Your task to perform on an android device: Go to display settings Image 0: 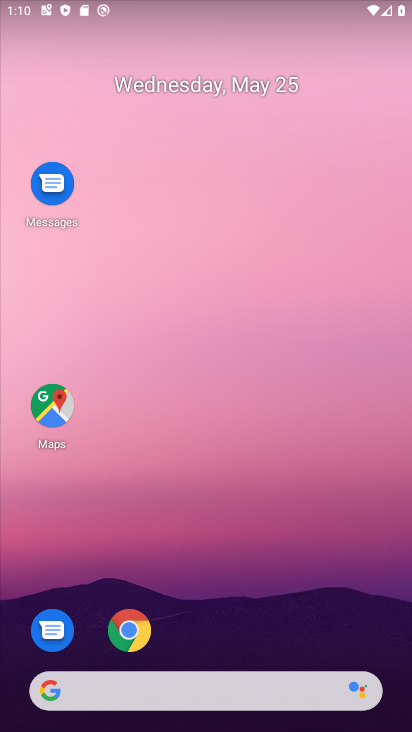
Step 0: drag from (411, 502) to (411, 610)
Your task to perform on an android device: Go to display settings Image 1: 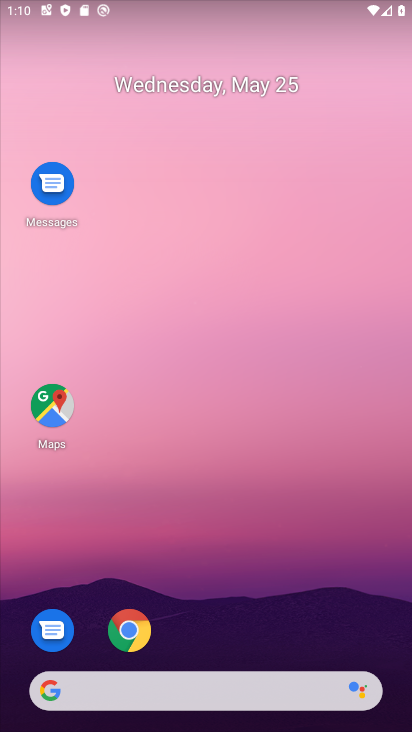
Step 1: drag from (294, 560) to (112, 54)
Your task to perform on an android device: Go to display settings Image 2: 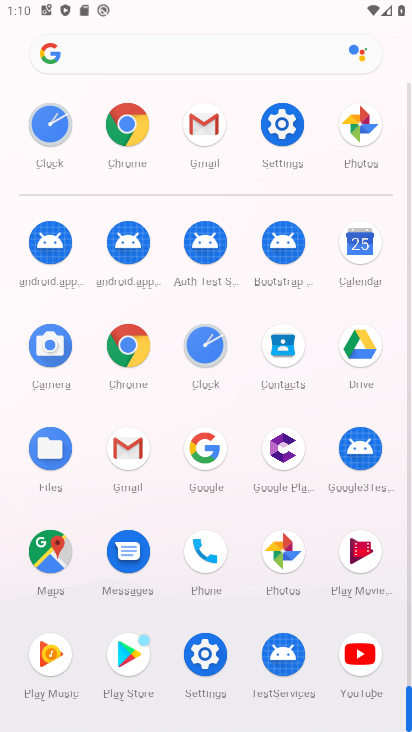
Step 2: click (286, 123)
Your task to perform on an android device: Go to display settings Image 3: 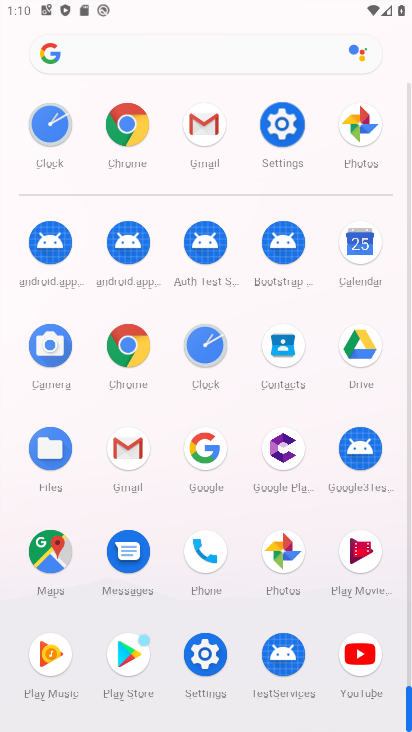
Step 3: click (286, 123)
Your task to perform on an android device: Go to display settings Image 4: 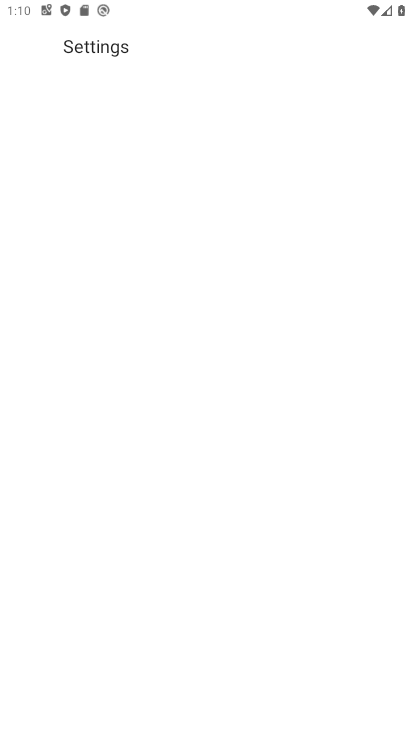
Step 4: click (287, 124)
Your task to perform on an android device: Go to display settings Image 5: 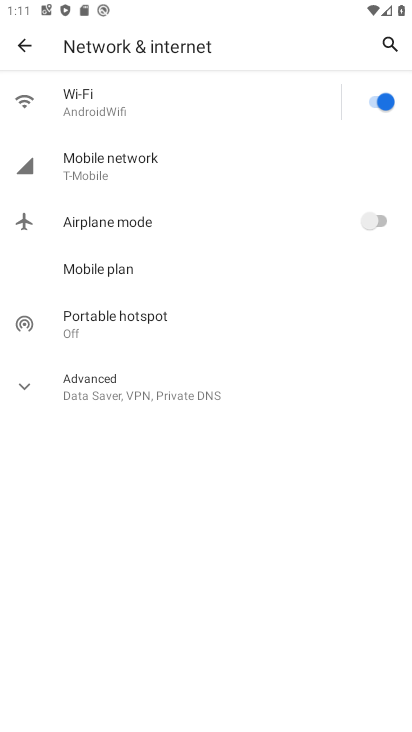
Step 5: click (20, 44)
Your task to perform on an android device: Go to display settings Image 6: 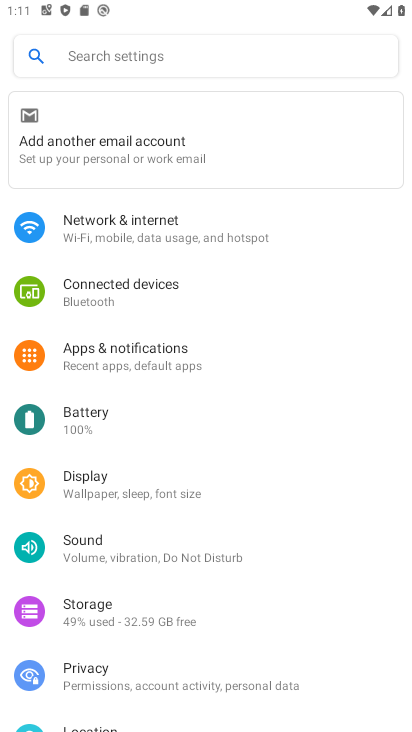
Step 6: click (93, 481)
Your task to perform on an android device: Go to display settings Image 7: 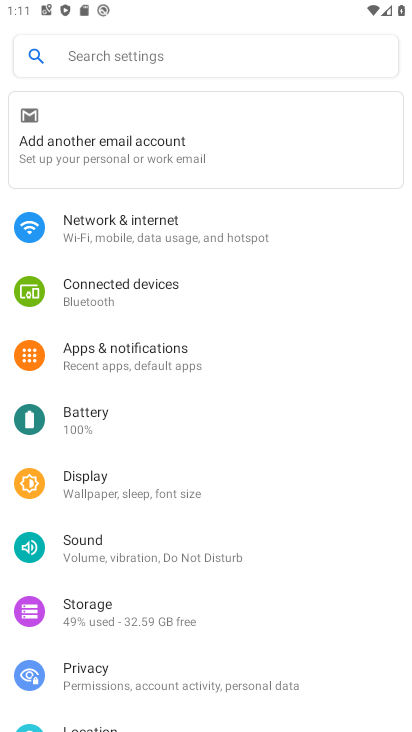
Step 7: click (93, 481)
Your task to perform on an android device: Go to display settings Image 8: 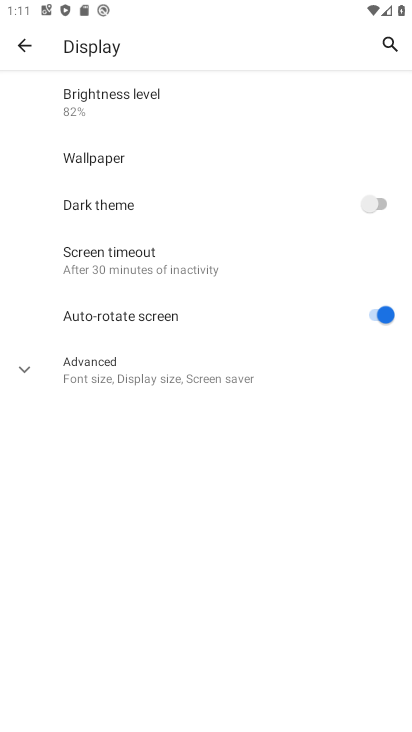
Step 8: task complete